Your task to perform on an android device: open app "PlayWell" (install if not already installed) Image 0: 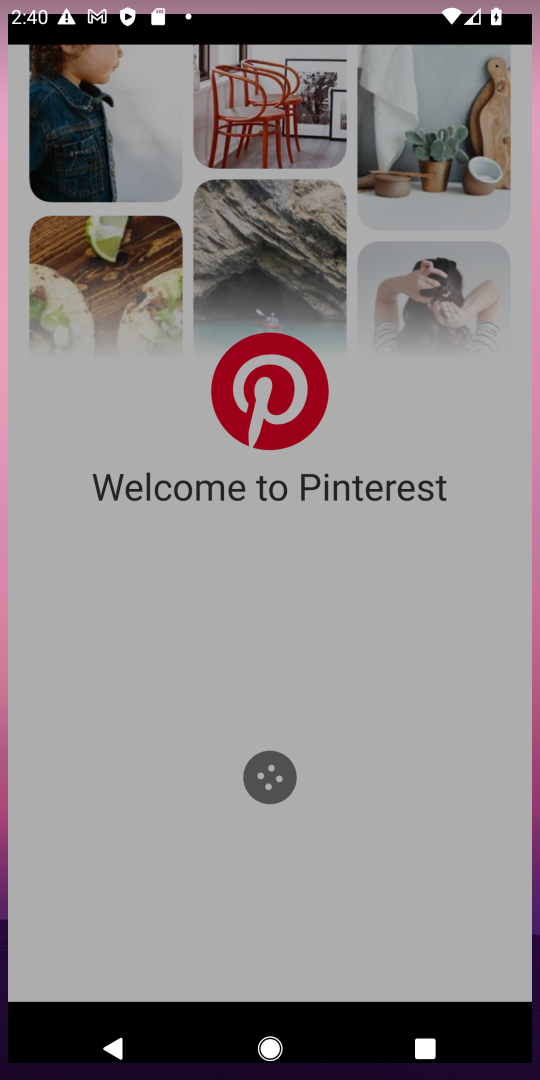
Step 0: click (252, 870)
Your task to perform on an android device: open app "PlayWell" (install if not already installed) Image 1: 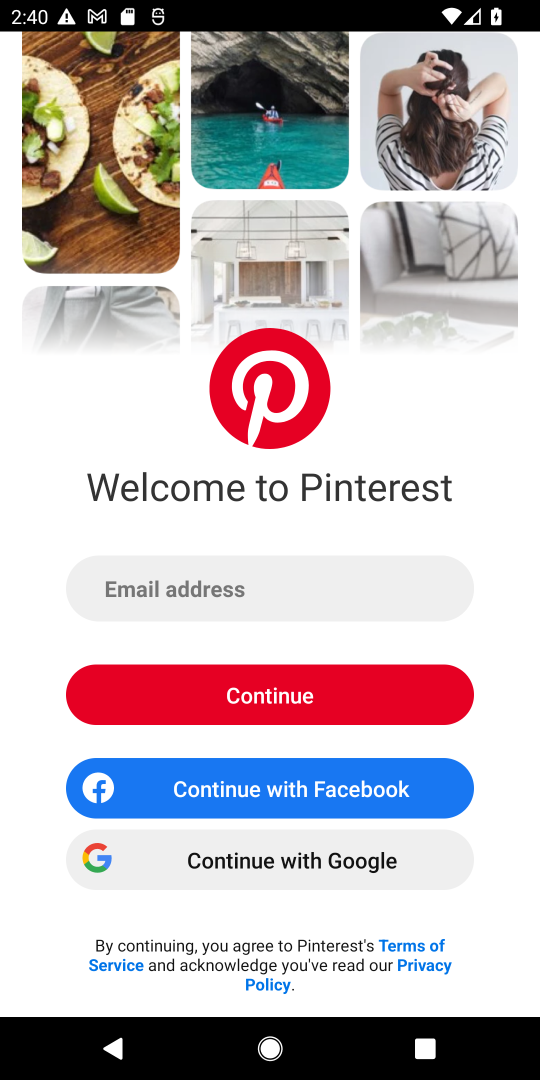
Step 1: press home button
Your task to perform on an android device: open app "PlayWell" (install if not already installed) Image 2: 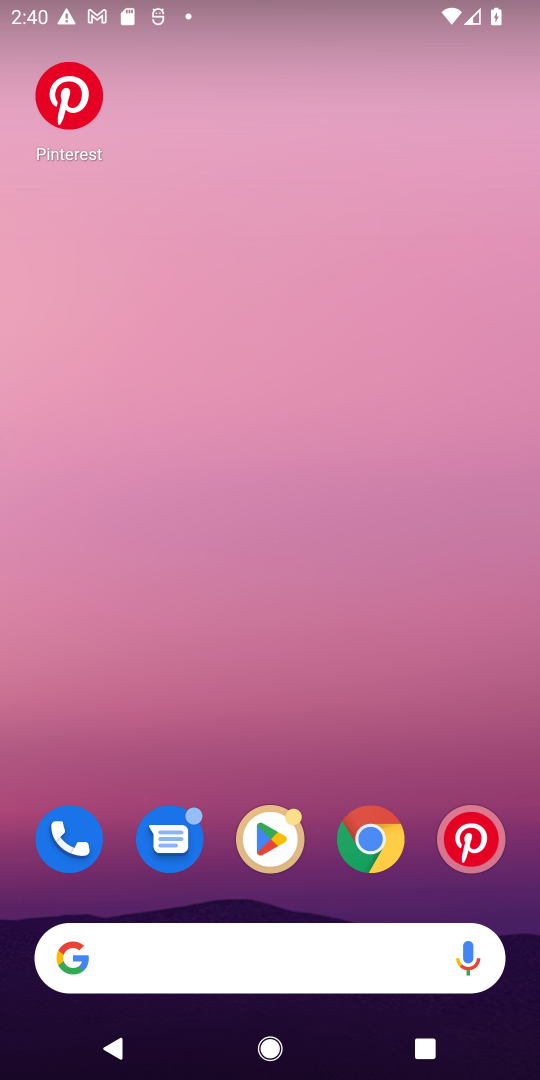
Step 2: click (255, 878)
Your task to perform on an android device: open app "PlayWell" (install if not already installed) Image 3: 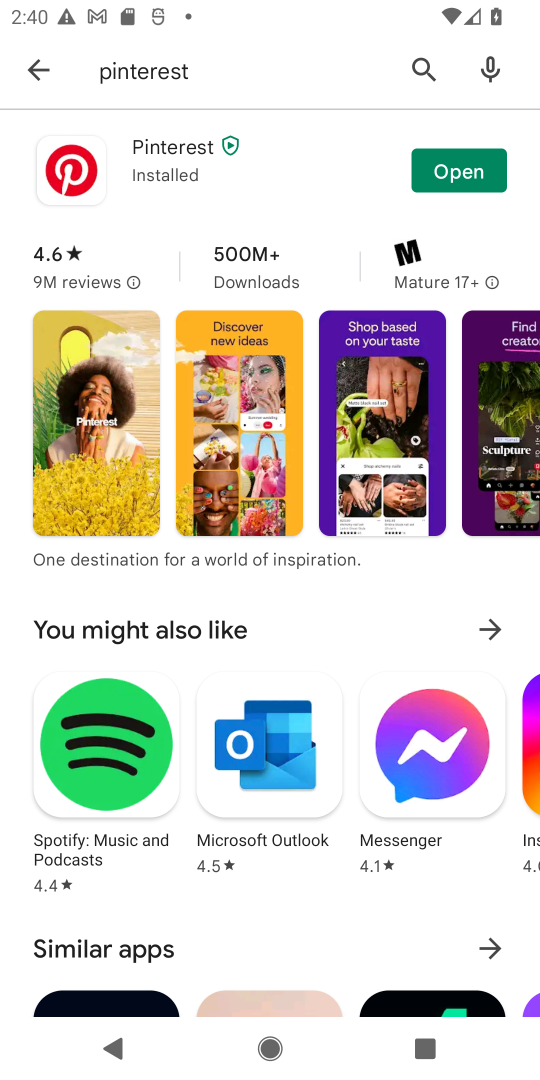
Step 3: click (23, 65)
Your task to perform on an android device: open app "PlayWell" (install if not already installed) Image 4: 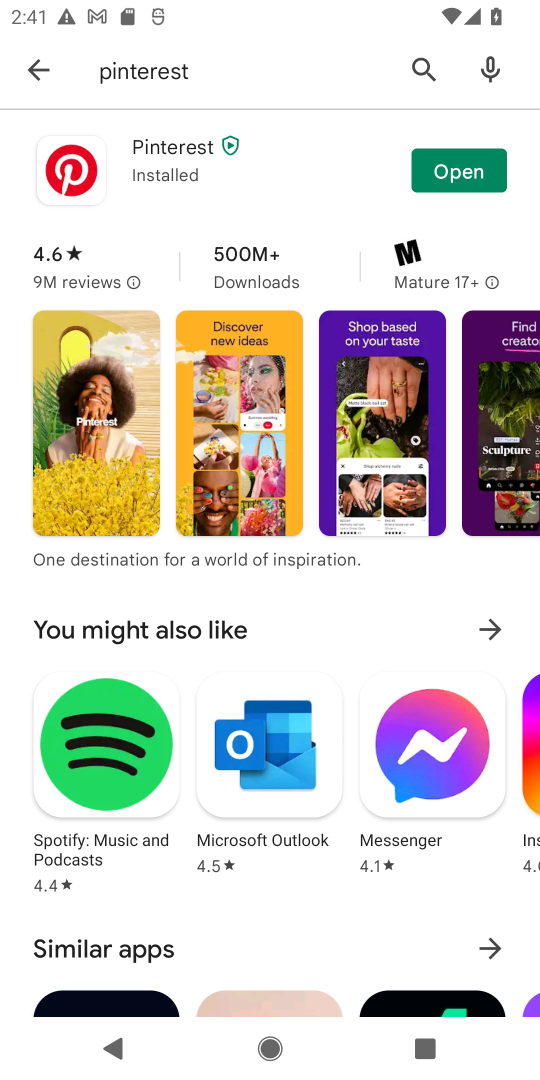
Step 4: click (29, 79)
Your task to perform on an android device: open app "PlayWell" (install if not already installed) Image 5: 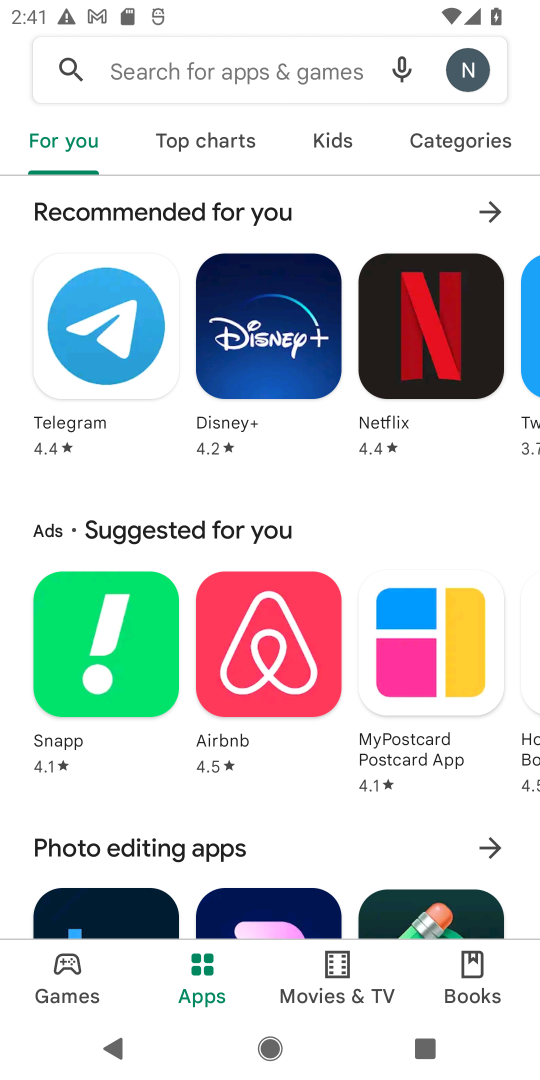
Step 5: click (154, 60)
Your task to perform on an android device: open app "PlayWell" (install if not already installed) Image 6: 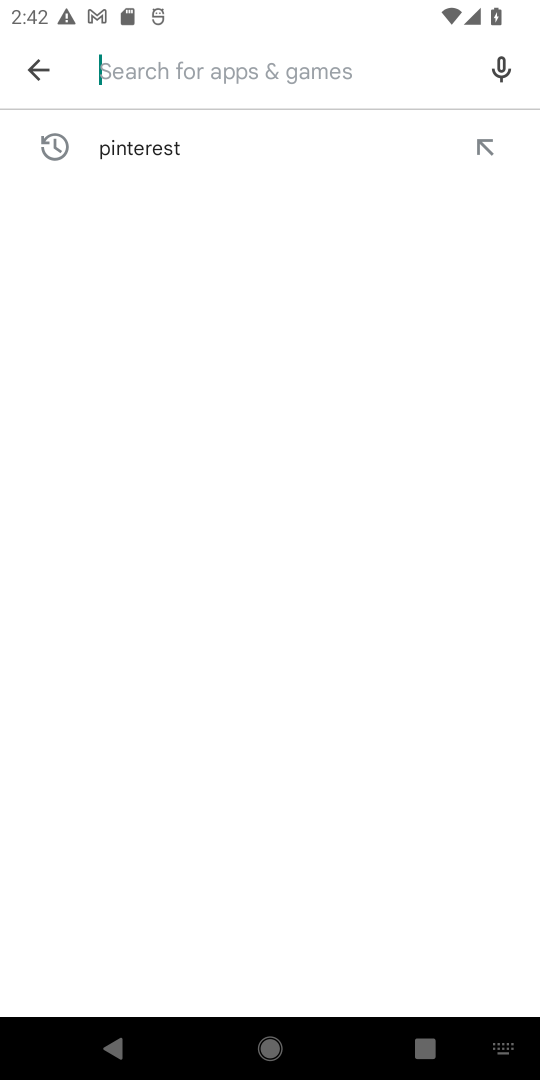
Step 6: type "PlayWell"
Your task to perform on an android device: open app "PlayWell" (install if not already installed) Image 7: 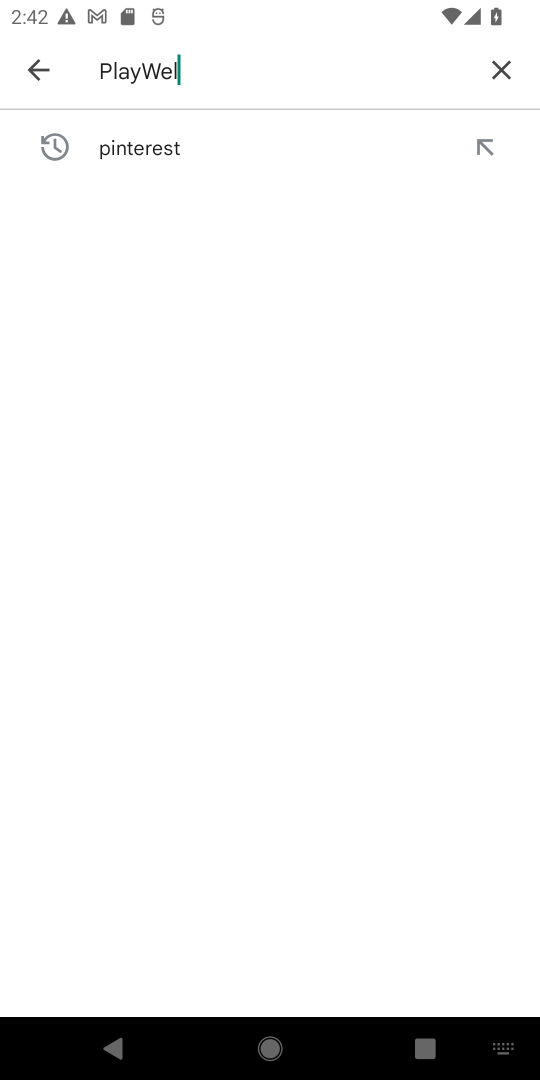
Step 7: type ""
Your task to perform on an android device: open app "PlayWell" (install if not already installed) Image 8: 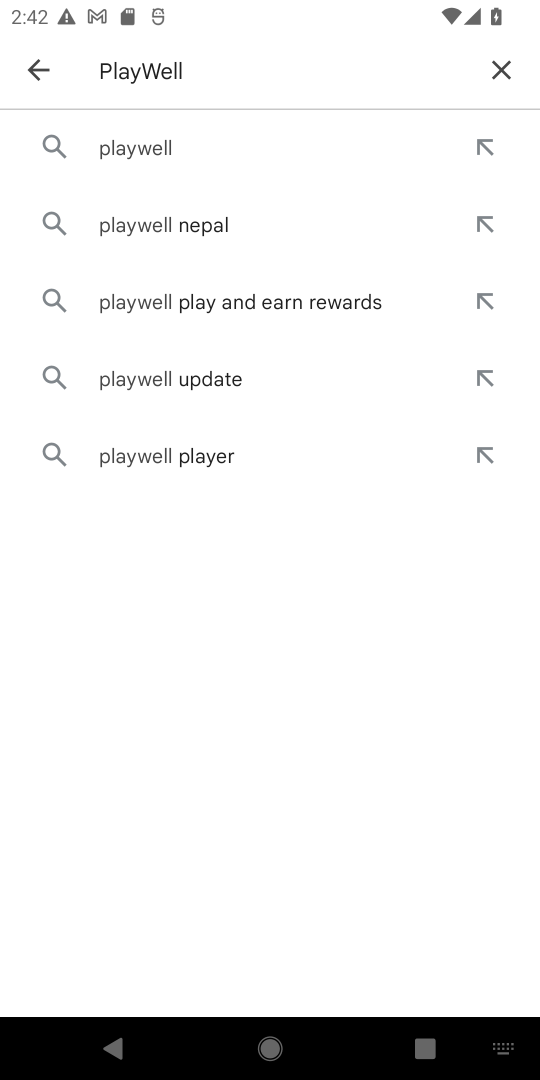
Step 8: click (165, 125)
Your task to perform on an android device: open app "PlayWell" (install if not already installed) Image 9: 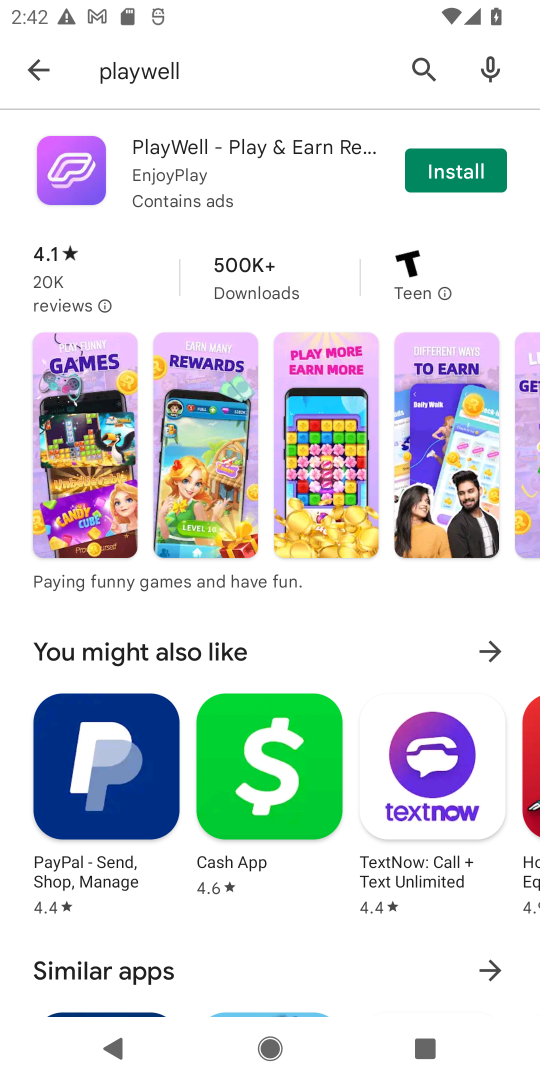
Step 9: click (433, 180)
Your task to perform on an android device: open app "PlayWell" (install if not already installed) Image 10: 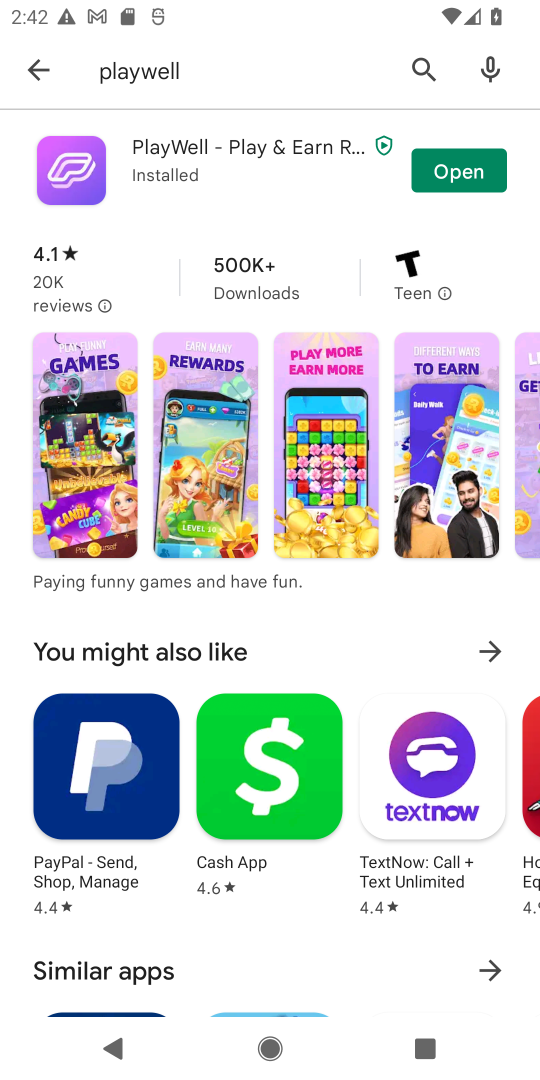
Step 10: click (444, 165)
Your task to perform on an android device: open app "PlayWell" (install if not already installed) Image 11: 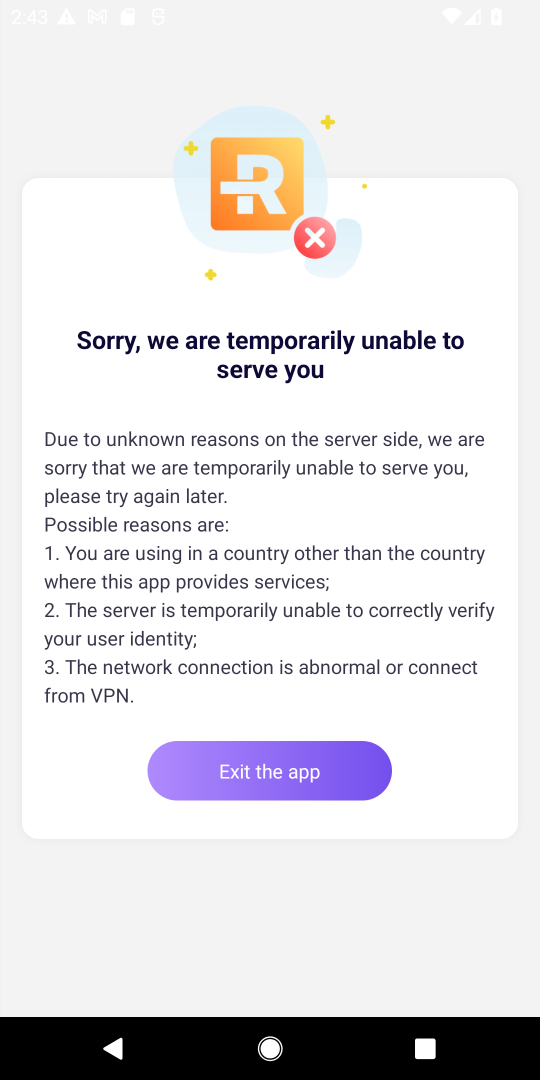
Step 11: task complete